Your task to perform on an android device: Clear the shopping cart on newegg.com. Image 0: 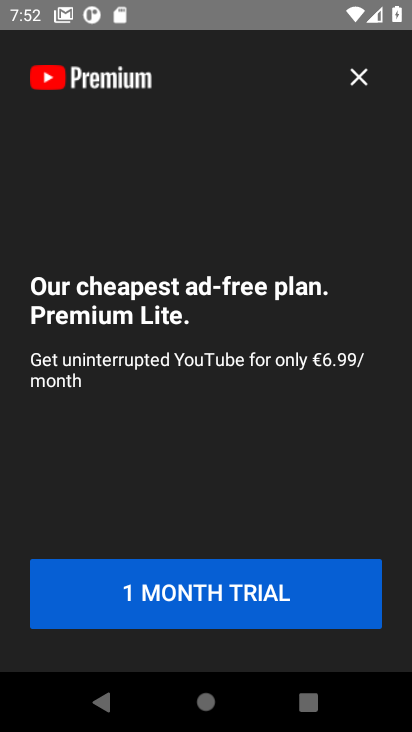
Step 0: press home button
Your task to perform on an android device: Clear the shopping cart on newegg.com. Image 1: 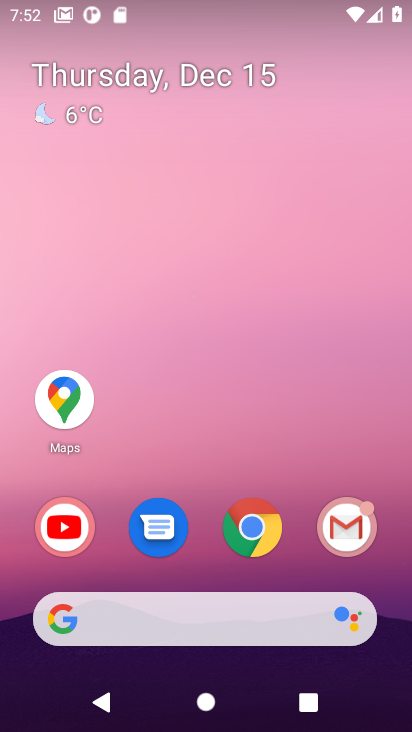
Step 1: click (274, 530)
Your task to perform on an android device: Clear the shopping cart on newegg.com. Image 2: 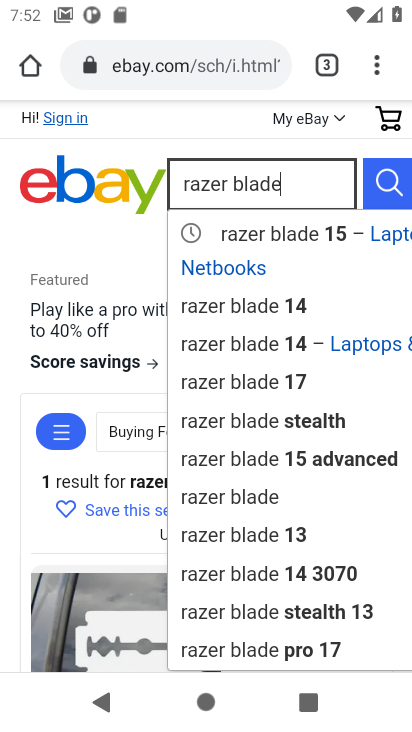
Step 2: click (171, 51)
Your task to perform on an android device: Clear the shopping cart on newegg.com. Image 3: 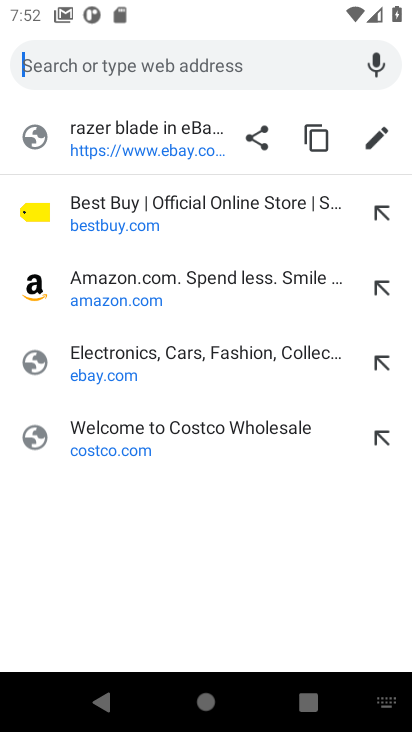
Step 3: type "newegg"
Your task to perform on an android device: Clear the shopping cart on newegg.com. Image 4: 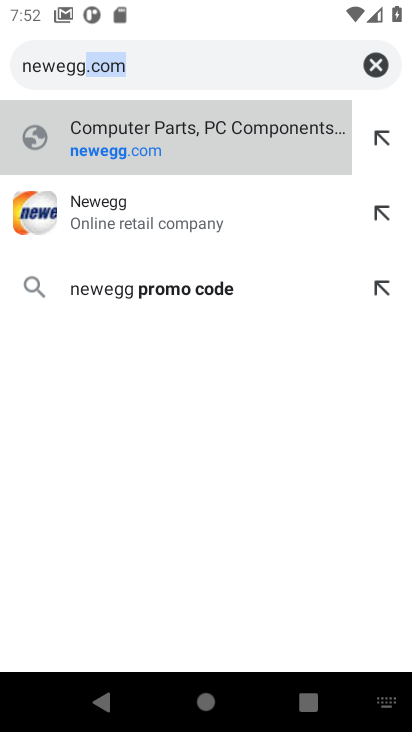
Step 4: click (119, 224)
Your task to perform on an android device: Clear the shopping cart on newegg.com. Image 5: 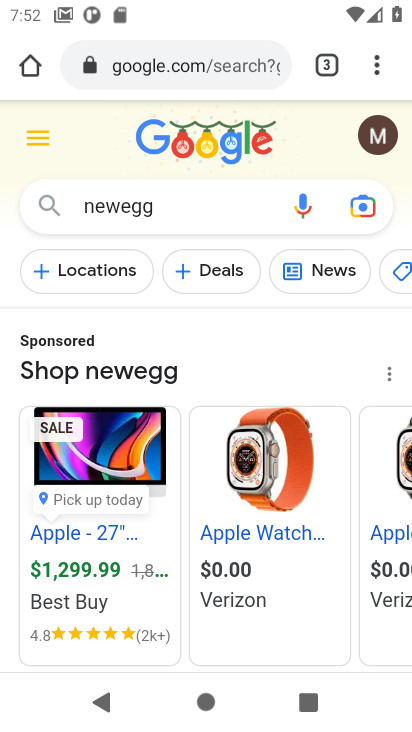
Step 5: drag from (123, 612) to (127, 276)
Your task to perform on an android device: Clear the shopping cart on newegg.com. Image 6: 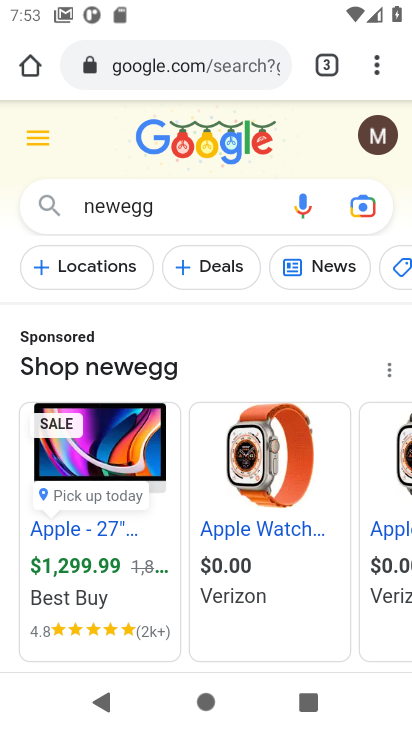
Step 6: drag from (191, 644) to (192, 280)
Your task to perform on an android device: Clear the shopping cart on newegg.com. Image 7: 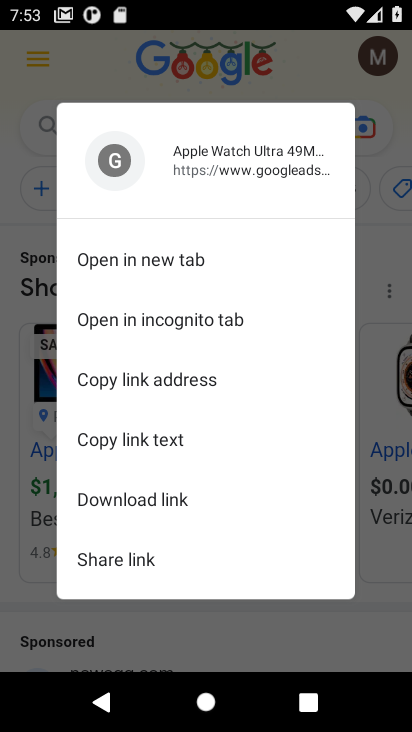
Step 7: click (165, 634)
Your task to perform on an android device: Clear the shopping cart on newegg.com. Image 8: 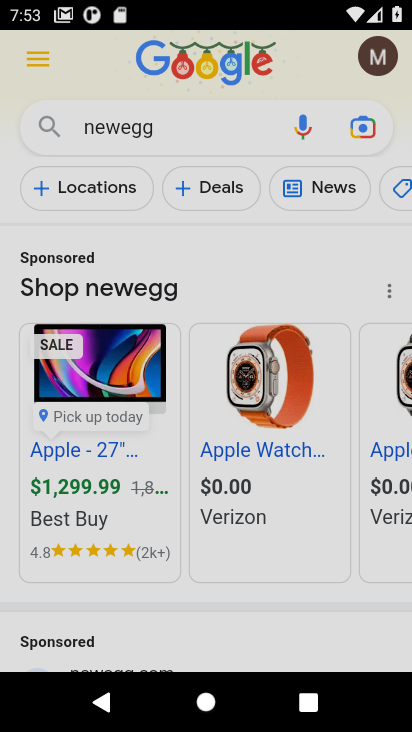
Step 8: drag from (165, 634) to (151, 363)
Your task to perform on an android device: Clear the shopping cart on newegg.com. Image 9: 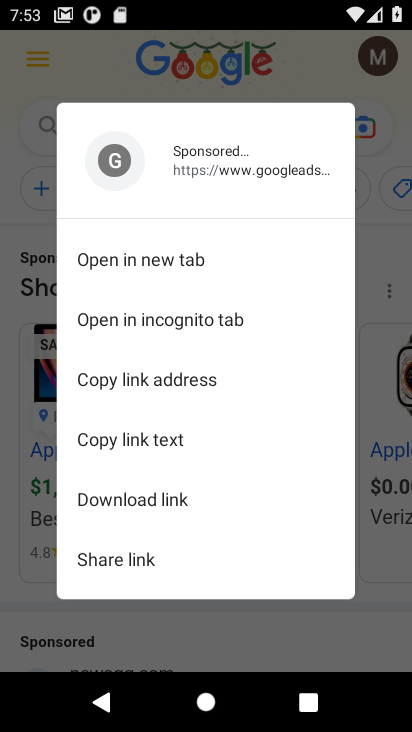
Step 9: click (260, 622)
Your task to perform on an android device: Clear the shopping cart on newegg.com. Image 10: 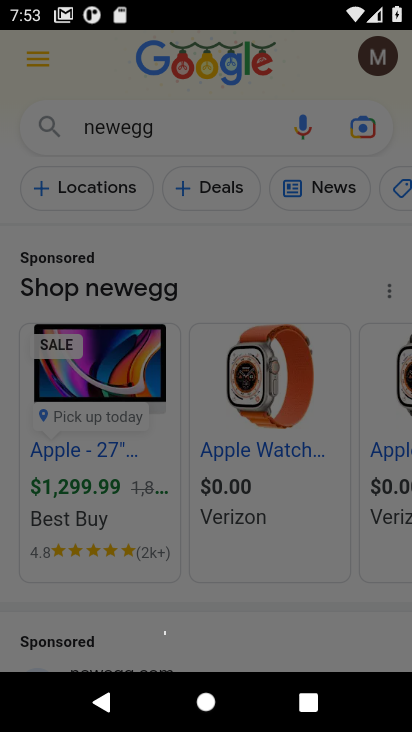
Step 10: task complete